Your task to perform on an android device: open chrome privacy settings Image 0: 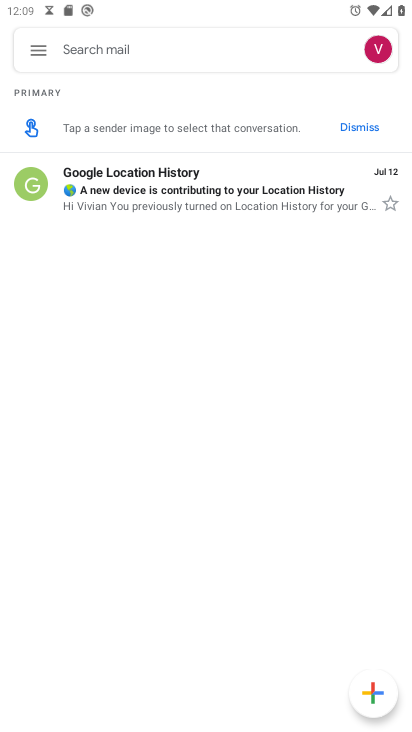
Step 0: press home button
Your task to perform on an android device: open chrome privacy settings Image 1: 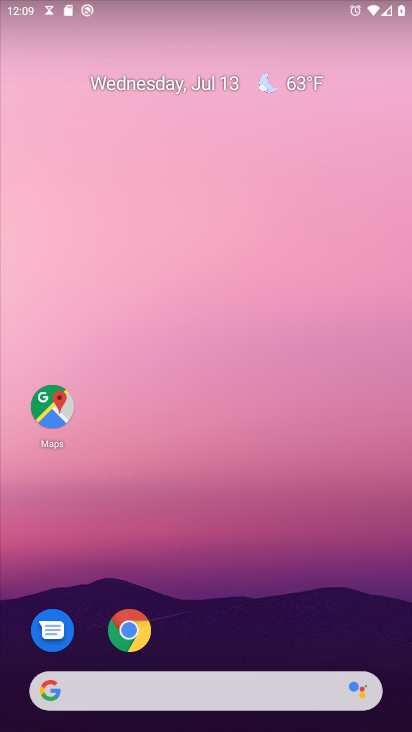
Step 1: click (133, 646)
Your task to perform on an android device: open chrome privacy settings Image 2: 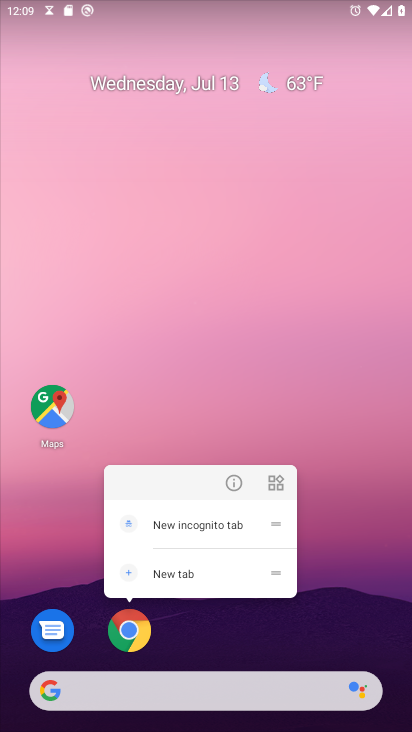
Step 2: click (128, 636)
Your task to perform on an android device: open chrome privacy settings Image 3: 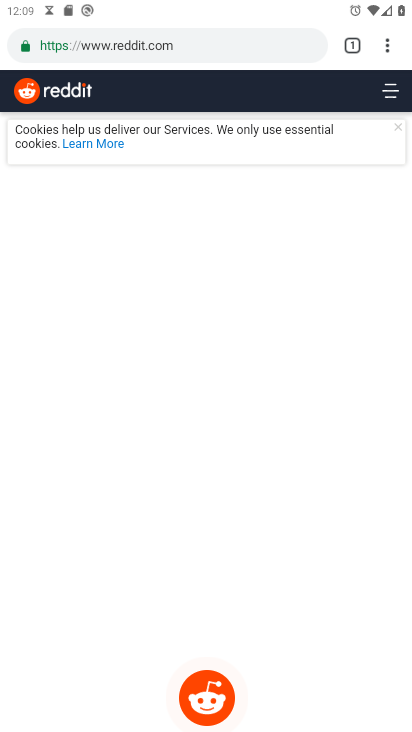
Step 3: drag from (381, 44) to (234, 547)
Your task to perform on an android device: open chrome privacy settings Image 4: 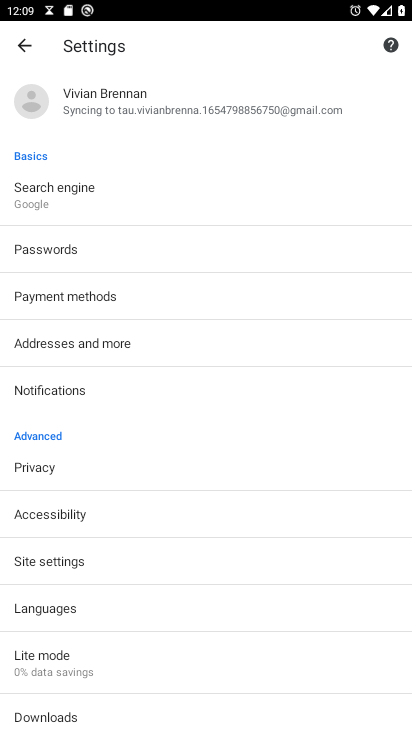
Step 4: click (68, 480)
Your task to perform on an android device: open chrome privacy settings Image 5: 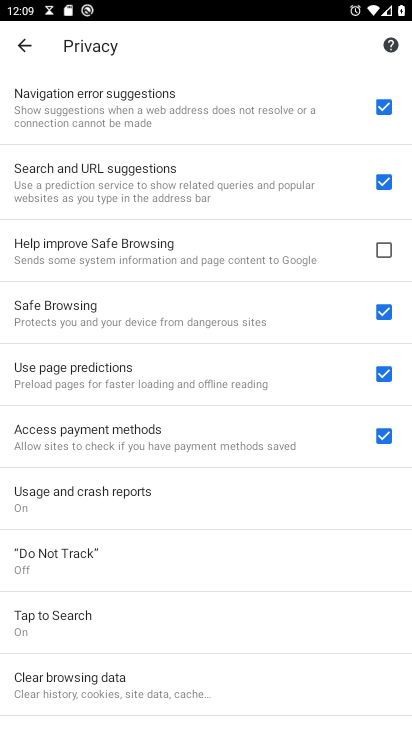
Step 5: task complete